Your task to perform on an android device: toggle translation in the chrome app Image 0: 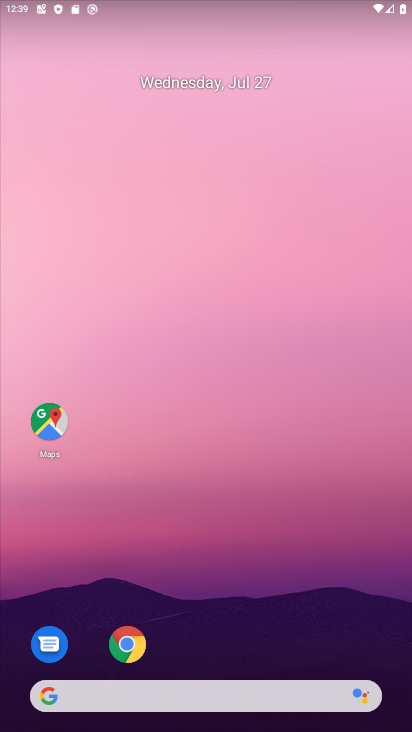
Step 0: press home button
Your task to perform on an android device: toggle translation in the chrome app Image 1: 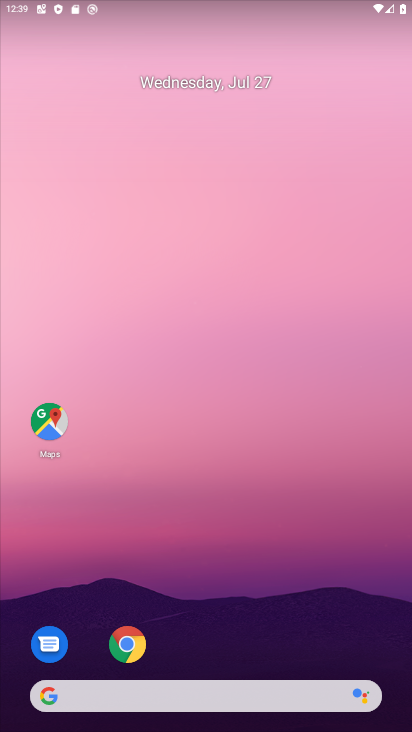
Step 1: drag from (287, 571) to (262, 107)
Your task to perform on an android device: toggle translation in the chrome app Image 2: 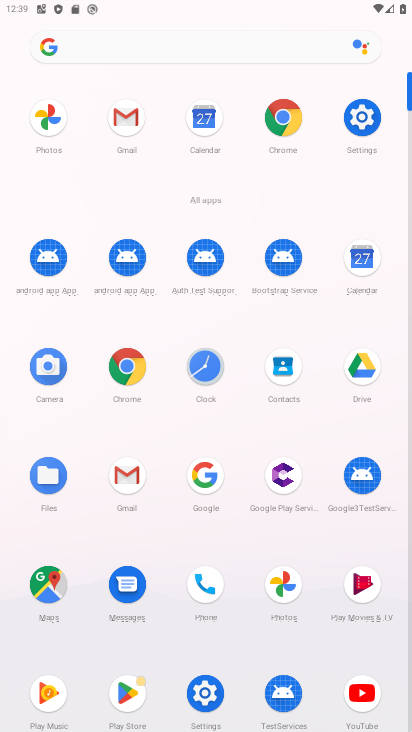
Step 2: click (127, 376)
Your task to perform on an android device: toggle translation in the chrome app Image 3: 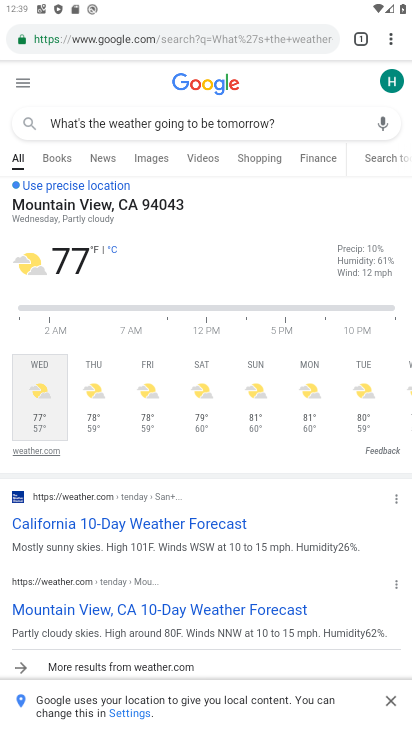
Step 3: drag from (393, 31) to (287, 435)
Your task to perform on an android device: toggle translation in the chrome app Image 4: 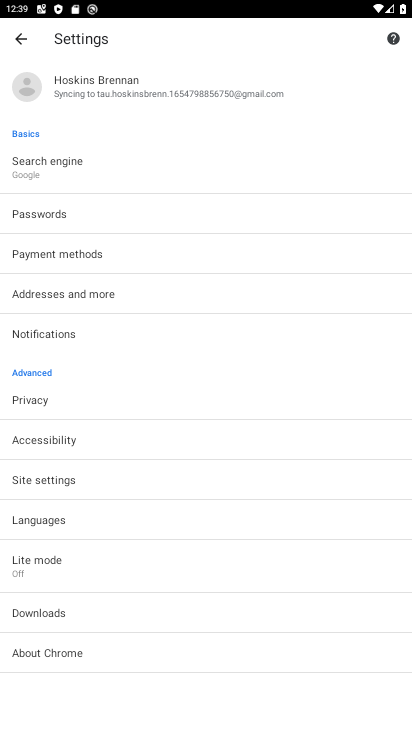
Step 4: click (44, 526)
Your task to perform on an android device: toggle translation in the chrome app Image 5: 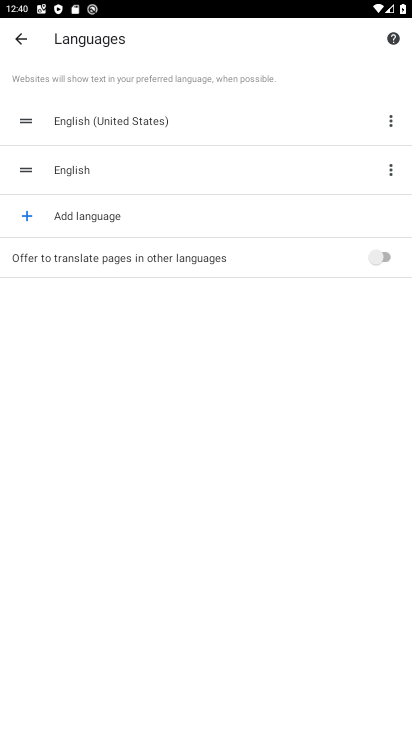
Step 5: click (326, 269)
Your task to perform on an android device: toggle translation in the chrome app Image 6: 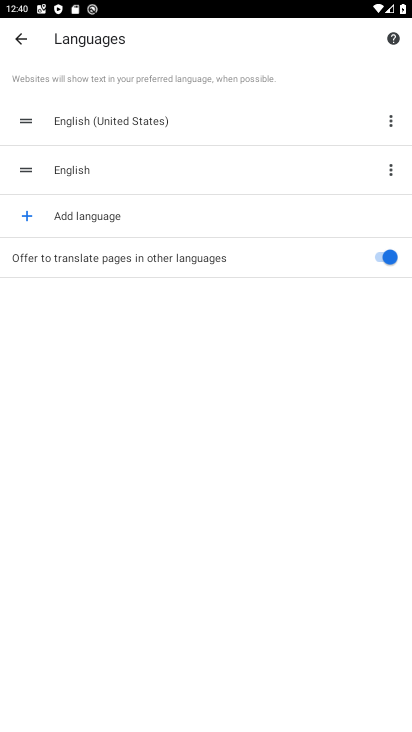
Step 6: task complete